Your task to perform on an android device: Open calendar and show me the second week of next month Image 0: 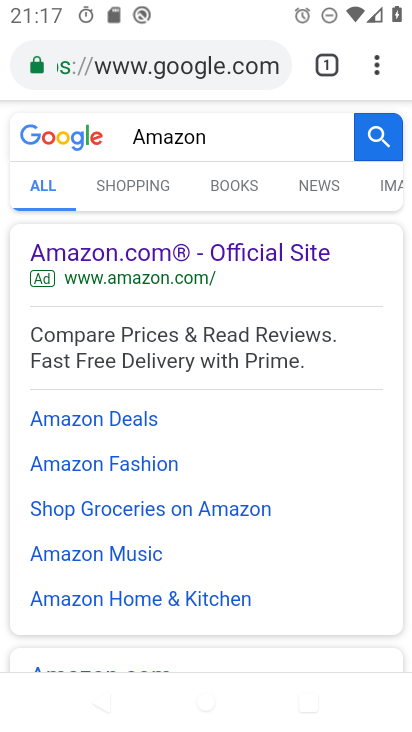
Step 0: press home button
Your task to perform on an android device: Open calendar and show me the second week of next month Image 1: 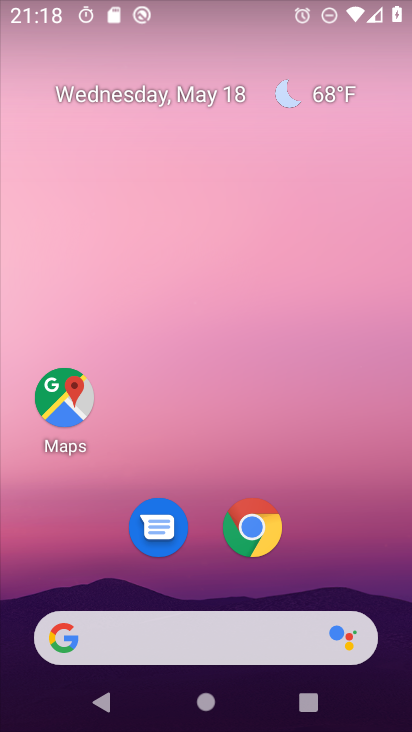
Step 1: drag from (399, 710) to (314, 313)
Your task to perform on an android device: Open calendar and show me the second week of next month Image 2: 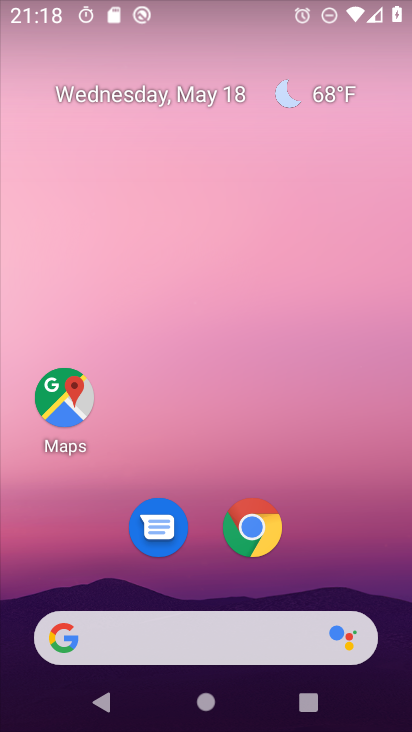
Step 2: drag from (394, 710) to (311, 271)
Your task to perform on an android device: Open calendar and show me the second week of next month Image 3: 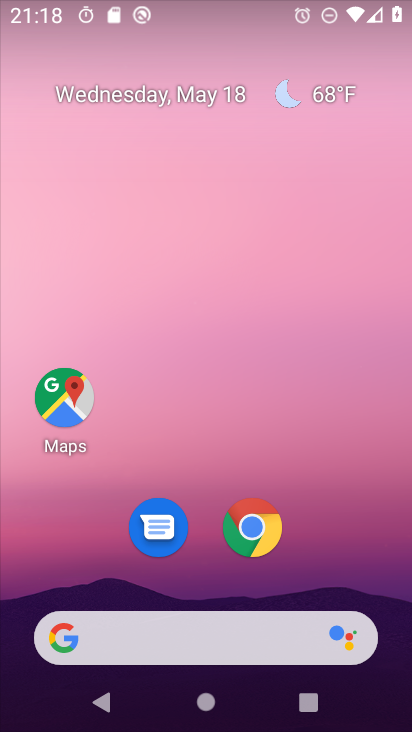
Step 3: drag from (398, 704) to (374, 226)
Your task to perform on an android device: Open calendar and show me the second week of next month Image 4: 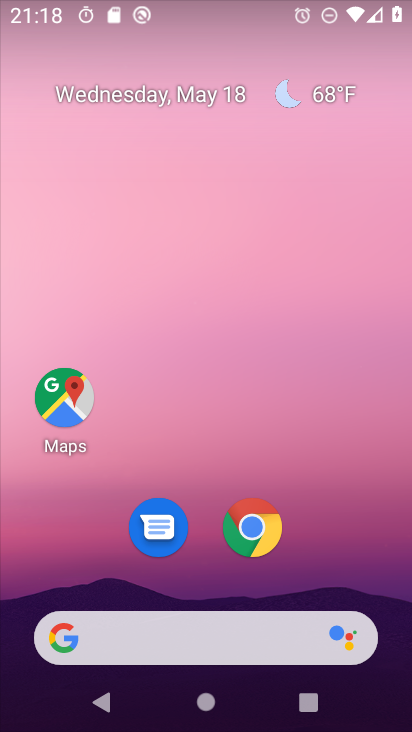
Step 4: drag from (390, 722) to (342, 46)
Your task to perform on an android device: Open calendar and show me the second week of next month Image 5: 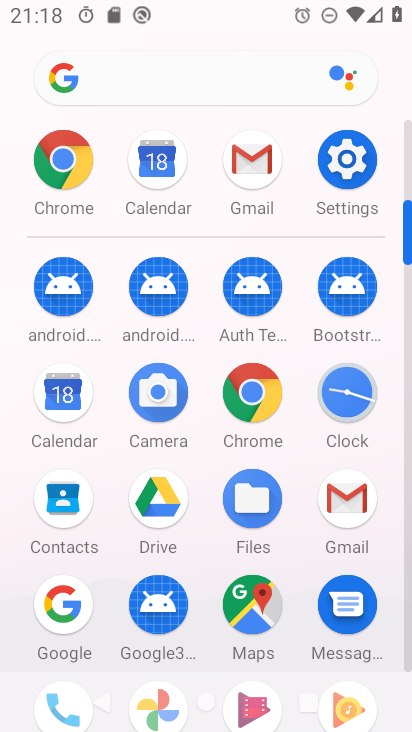
Step 5: click (67, 405)
Your task to perform on an android device: Open calendar and show me the second week of next month Image 6: 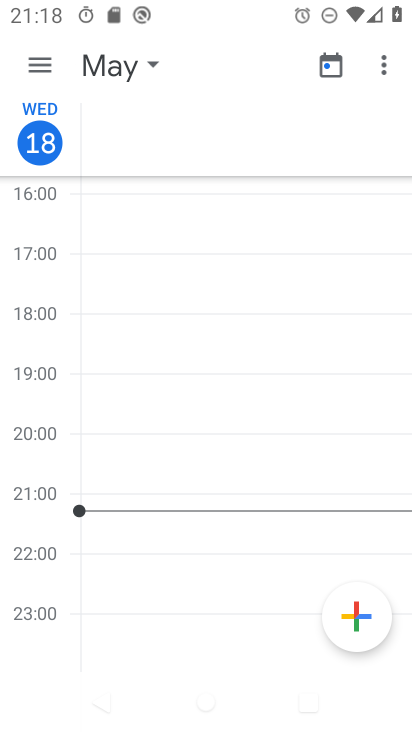
Step 6: click (149, 57)
Your task to perform on an android device: Open calendar and show me the second week of next month Image 7: 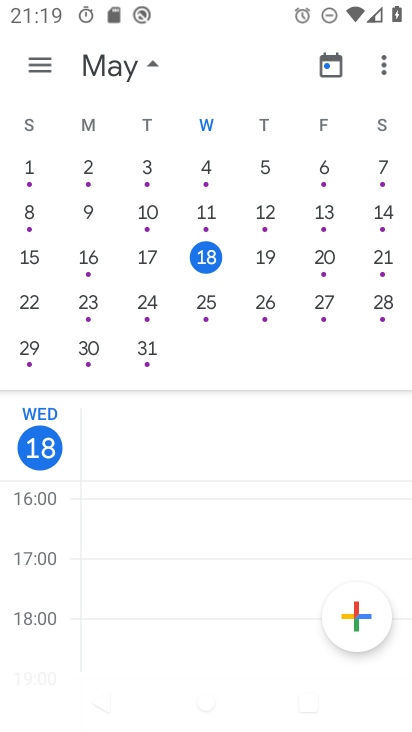
Step 7: drag from (404, 227) to (157, 252)
Your task to perform on an android device: Open calendar and show me the second week of next month Image 8: 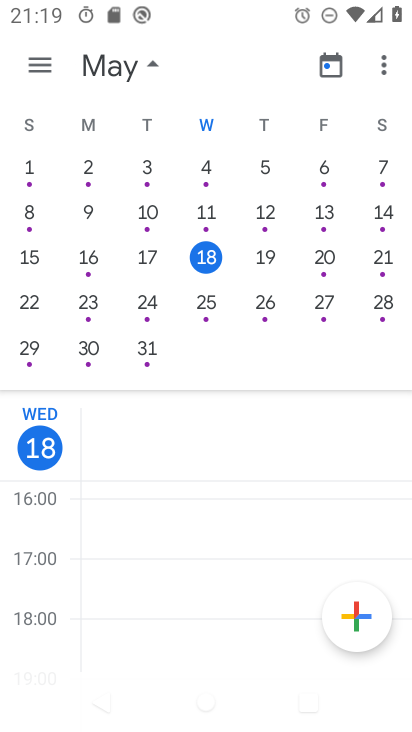
Step 8: drag from (410, 220) to (132, 207)
Your task to perform on an android device: Open calendar and show me the second week of next month Image 9: 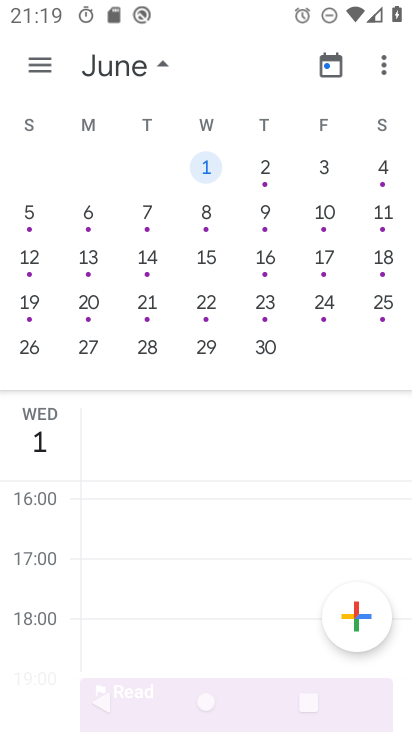
Step 9: click (264, 213)
Your task to perform on an android device: Open calendar and show me the second week of next month Image 10: 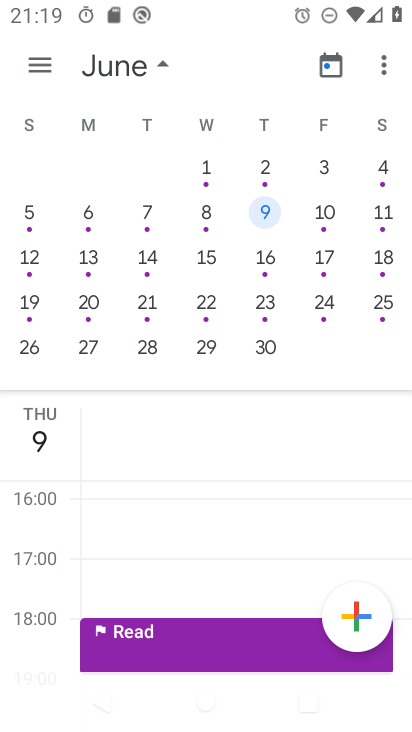
Step 10: task complete